Your task to perform on an android device: add a contact Image 0: 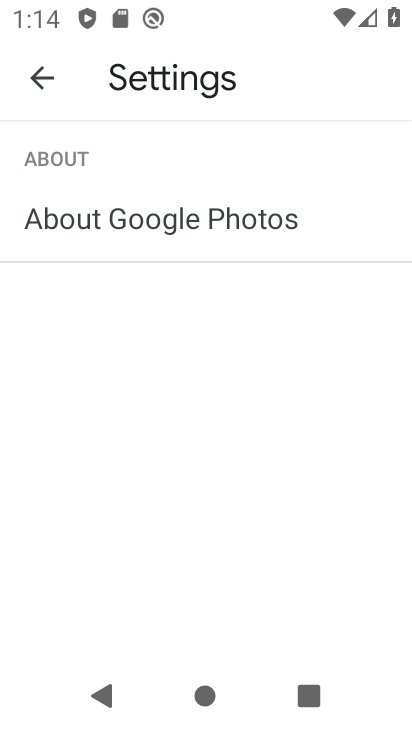
Step 0: press home button
Your task to perform on an android device: add a contact Image 1: 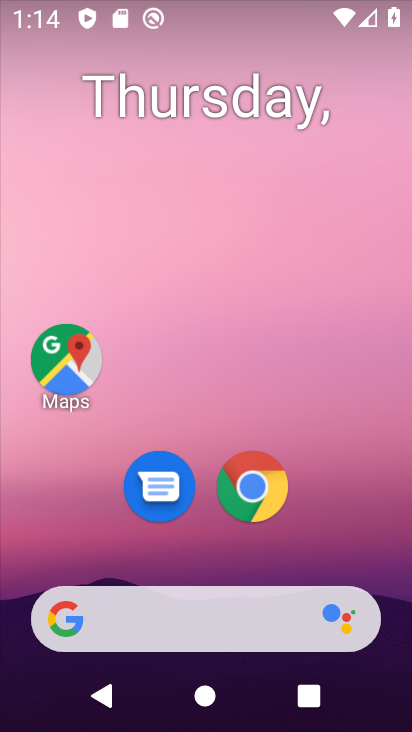
Step 1: drag from (368, 535) to (289, 152)
Your task to perform on an android device: add a contact Image 2: 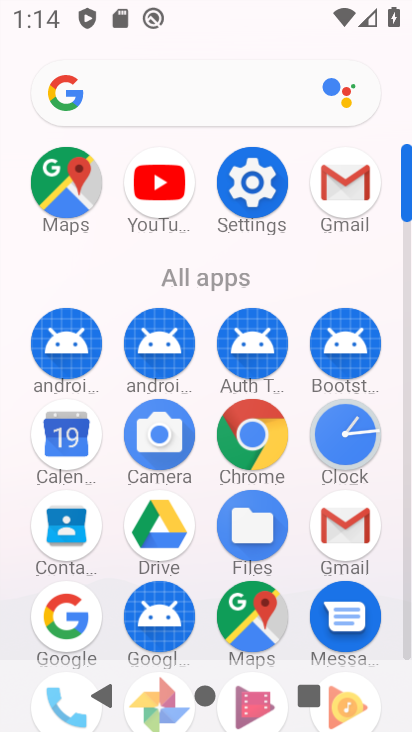
Step 2: click (402, 601)
Your task to perform on an android device: add a contact Image 3: 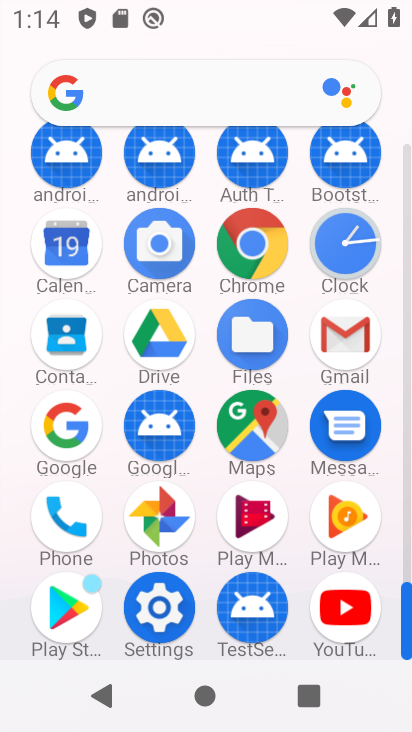
Step 3: click (82, 329)
Your task to perform on an android device: add a contact Image 4: 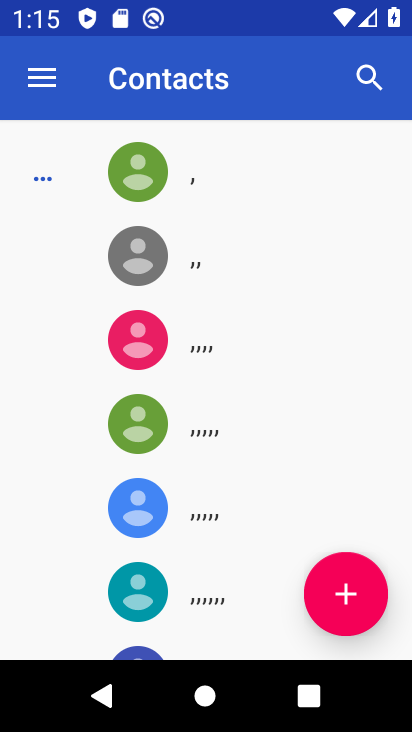
Step 4: click (330, 594)
Your task to perform on an android device: add a contact Image 5: 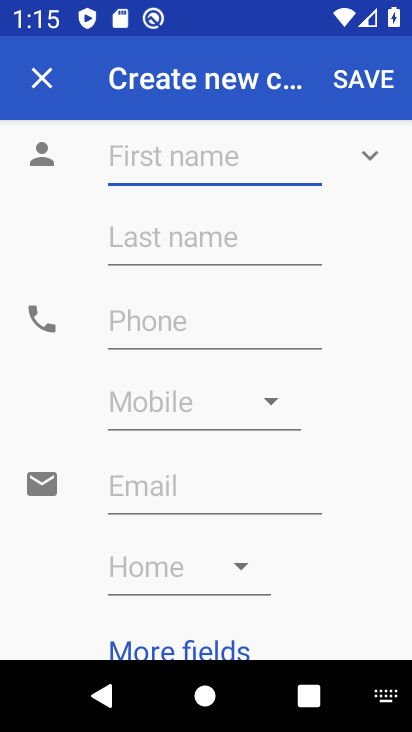
Step 5: type "chhgcgh"
Your task to perform on an android device: add a contact Image 6: 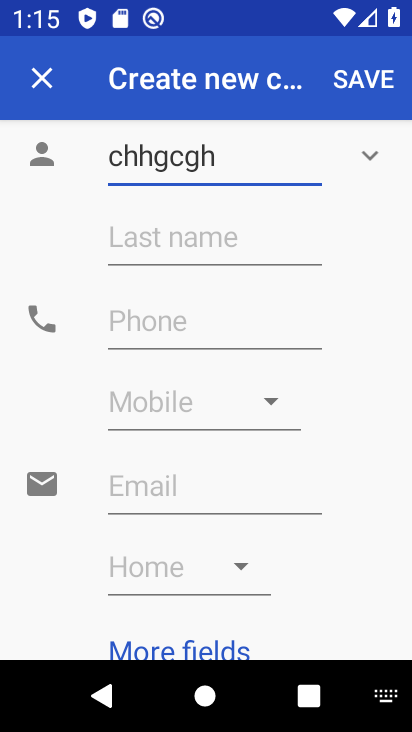
Step 6: click (201, 319)
Your task to perform on an android device: add a contact Image 7: 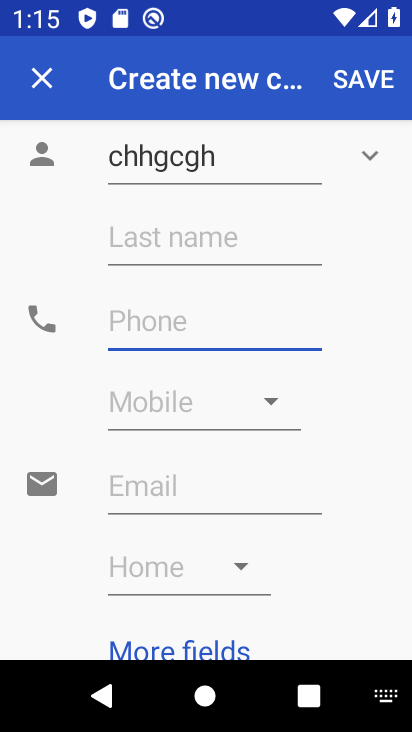
Step 7: type "6876786"
Your task to perform on an android device: add a contact Image 8: 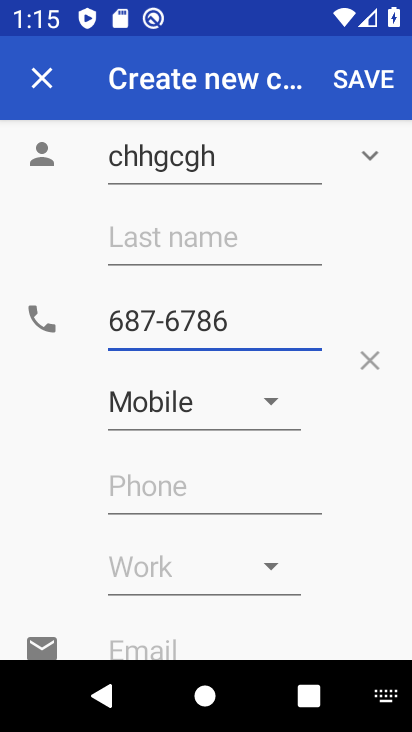
Step 8: click (367, 97)
Your task to perform on an android device: add a contact Image 9: 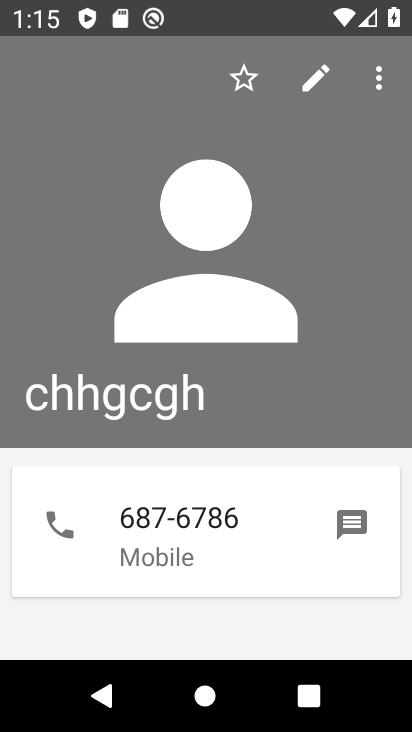
Step 9: task complete